Your task to perform on an android device: Show me popular videos on Youtube Image 0: 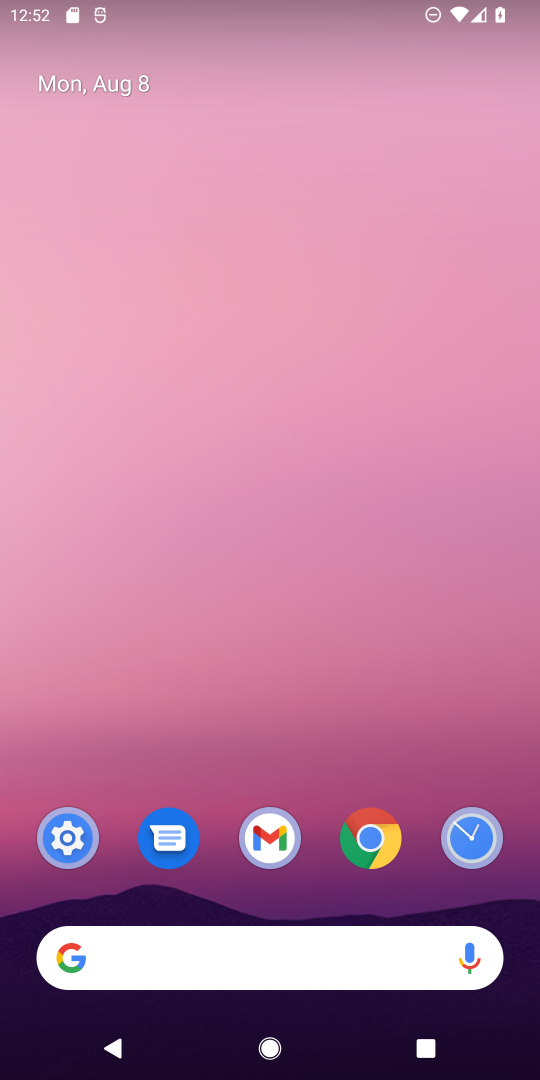
Step 0: press home button
Your task to perform on an android device: Show me popular videos on Youtube Image 1: 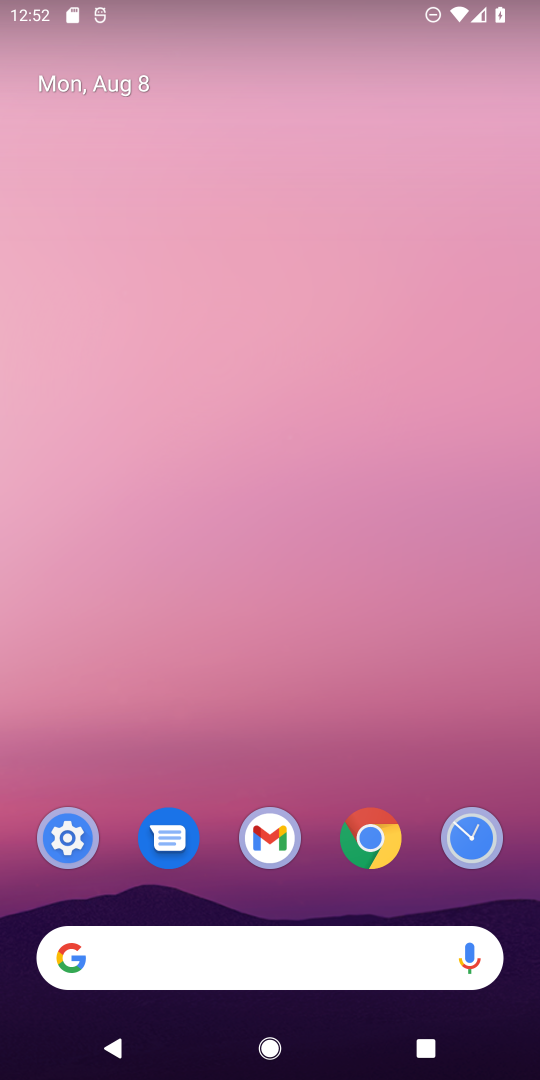
Step 1: drag from (388, 552) to (400, 19)
Your task to perform on an android device: Show me popular videos on Youtube Image 2: 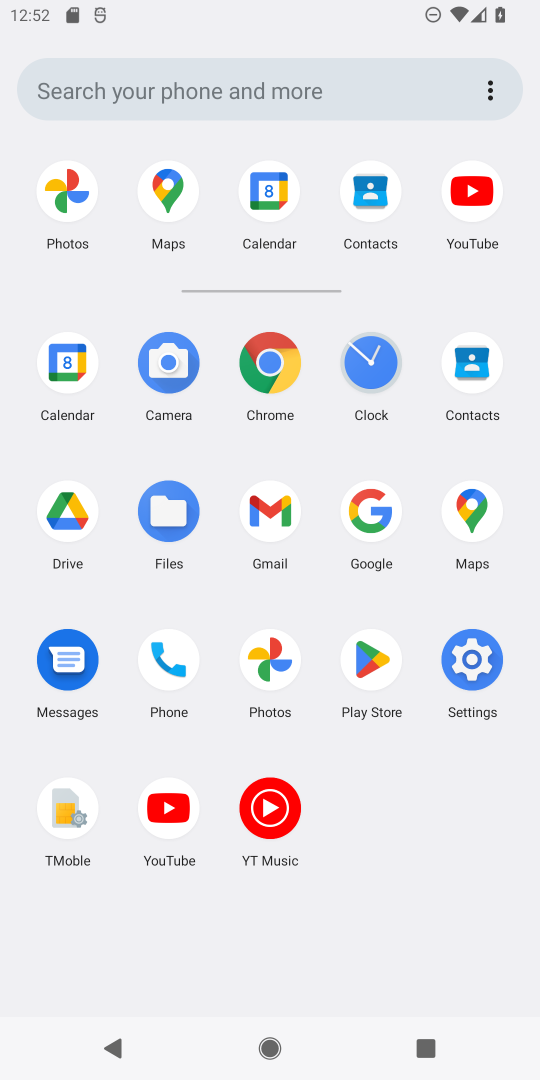
Step 2: click (176, 801)
Your task to perform on an android device: Show me popular videos on Youtube Image 3: 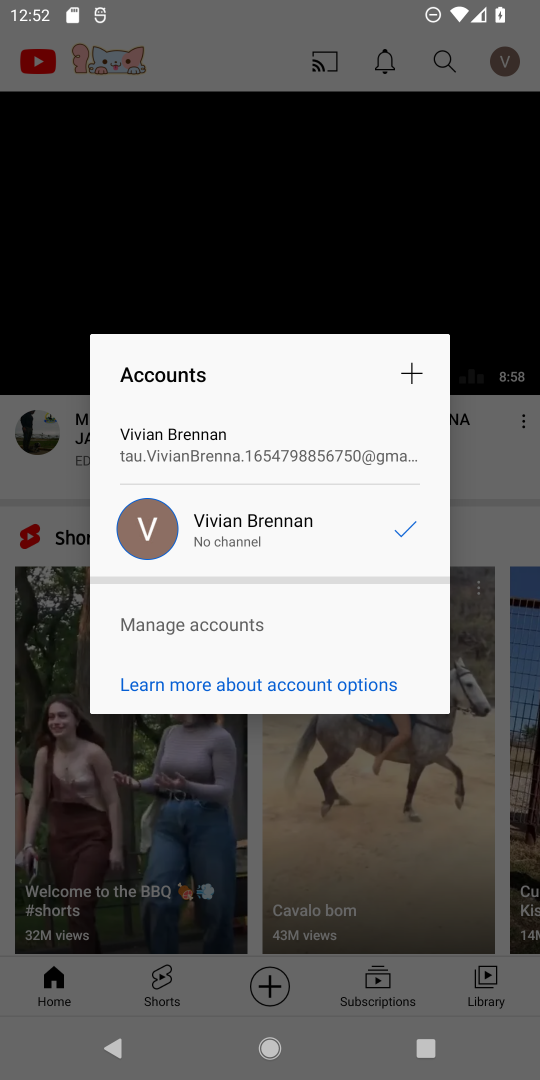
Step 3: click (409, 527)
Your task to perform on an android device: Show me popular videos on Youtube Image 4: 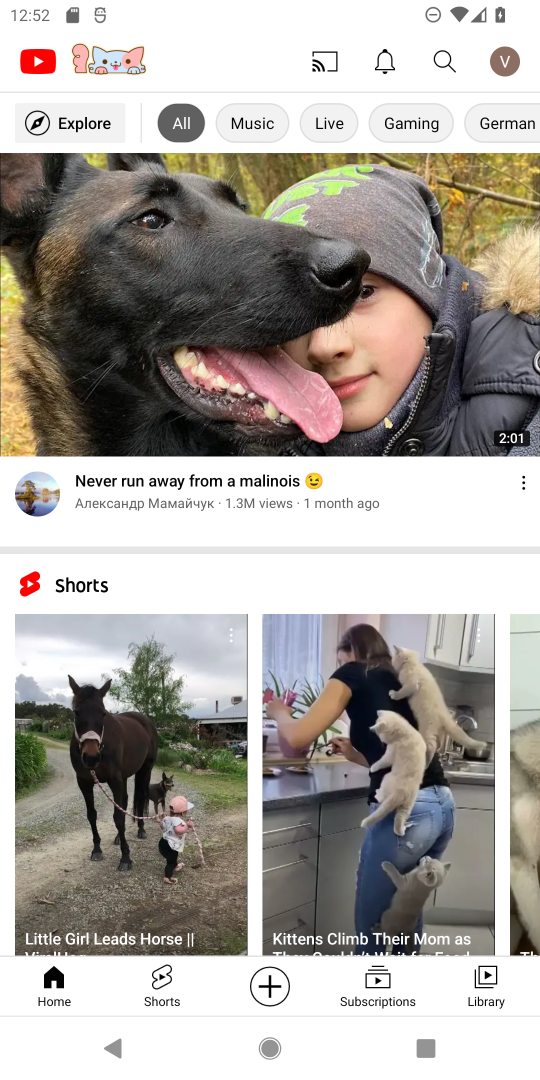
Step 4: drag from (293, 521) to (282, 1044)
Your task to perform on an android device: Show me popular videos on Youtube Image 5: 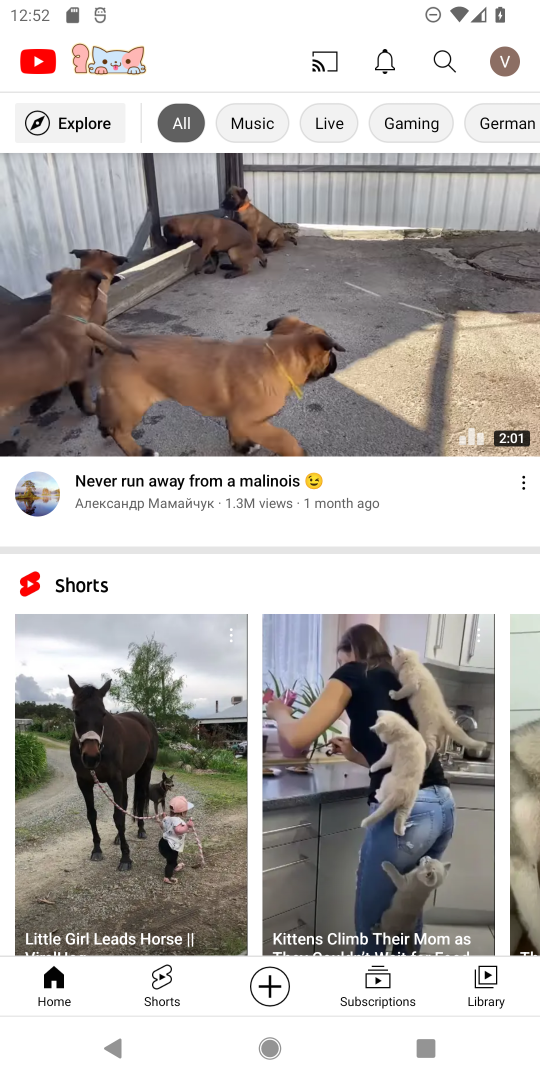
Step 5: click (76, 123)
Your task to perform on an android device: Show me popular videos on Youtube Image 6: 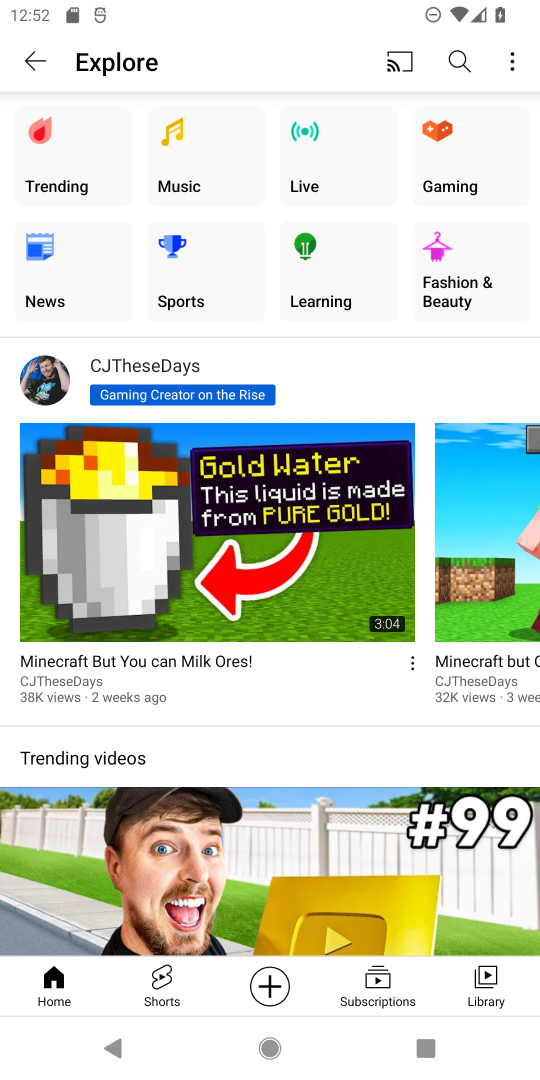
Step 6: click (58, 154)
Your task to perform on an android device: Show me popular videos on Youtube Image 7: 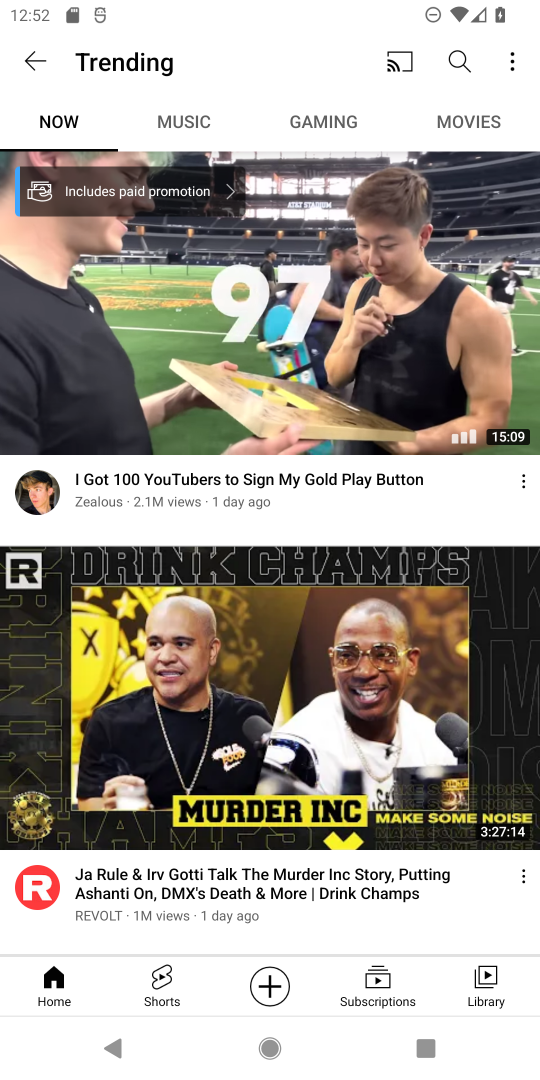
Step 7: task complete